Your task to perform on an android device: install app "The Home Depot" Image 0: 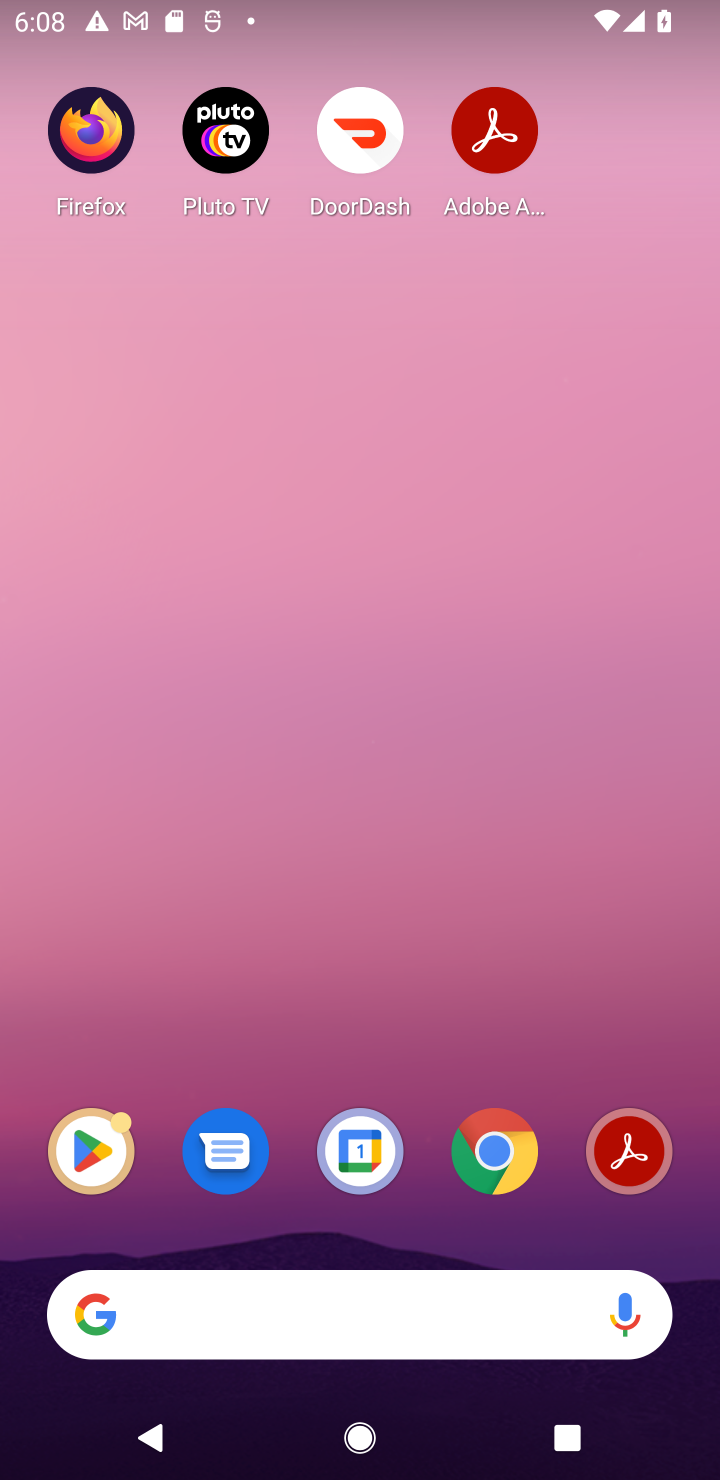
Step 0: drag from (340, 1302) to (472, 131)
Your task to perform on an android device: install app "The Home Depot" Image 1: 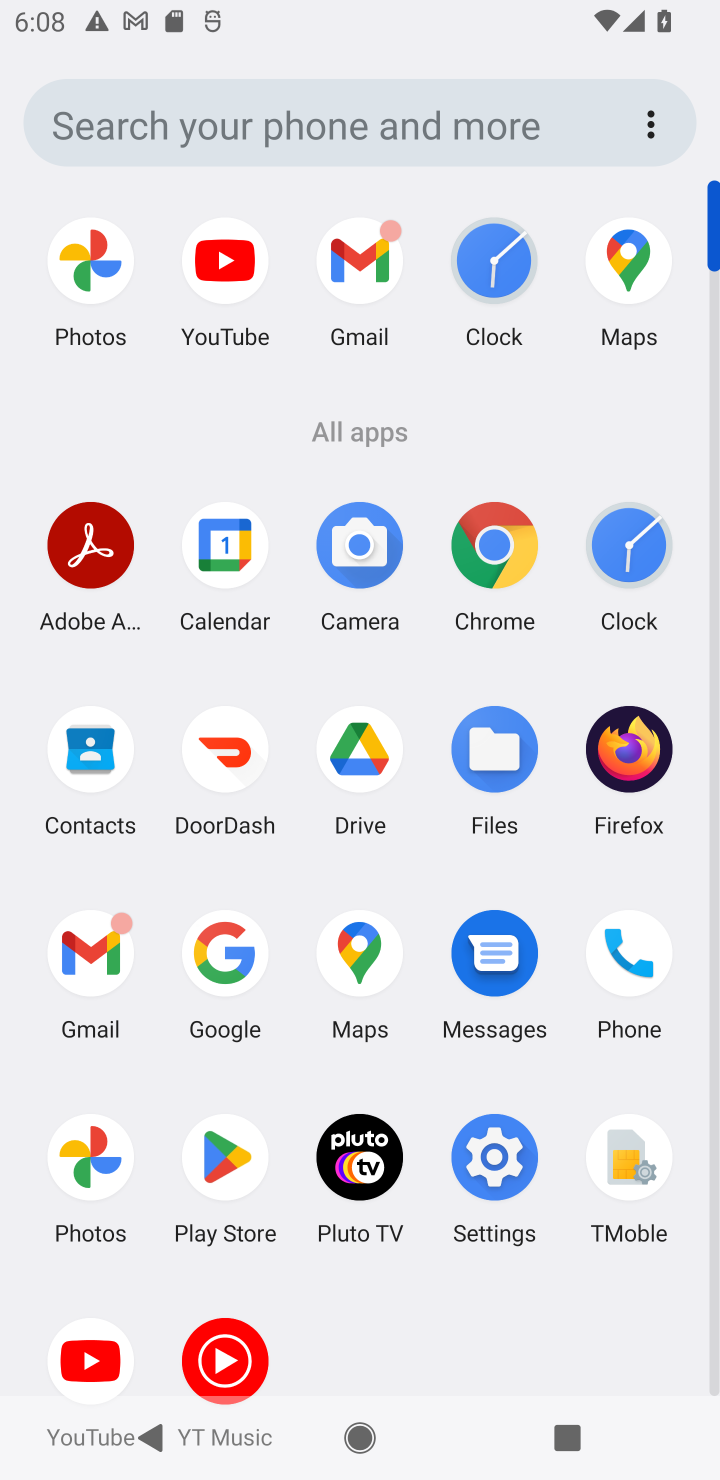
Step 1: click (228, 1178)
Your task to perform on an android device: install app "The Home Depot" Image 2: 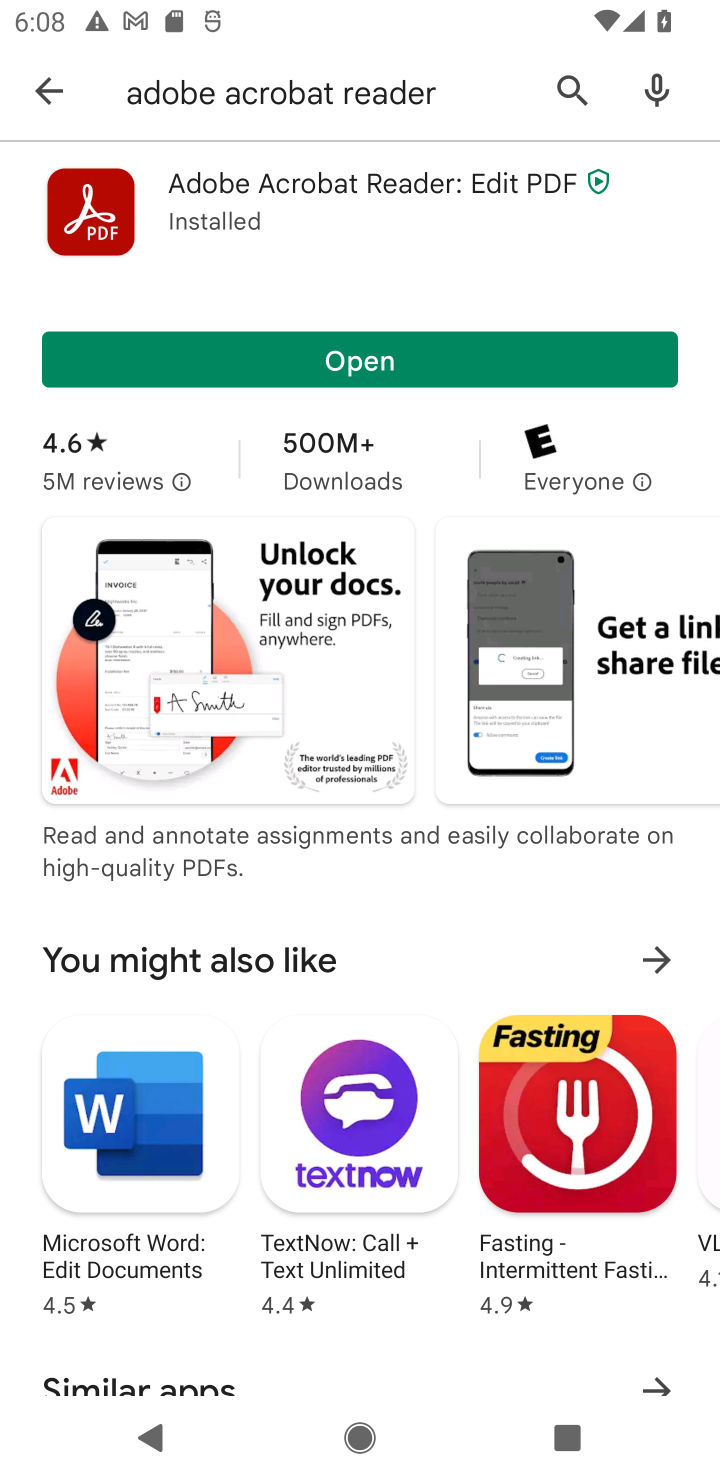
Step 2: click (560, 104)
Your task to perform on an android device: install app "The Home Depot" Image 3: 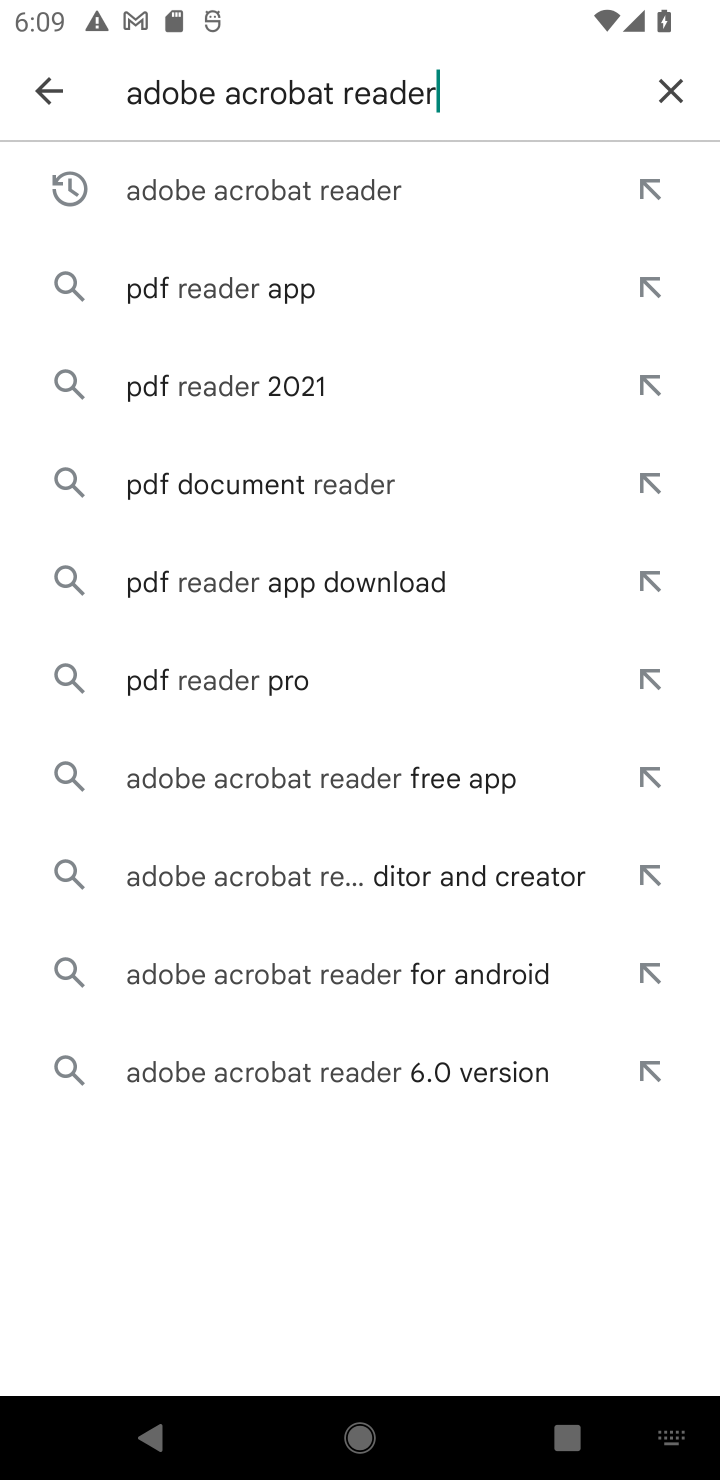
Step 3: click (678, 99)
Your task to perform on an android device: install app "The Home Depot" Image 4: 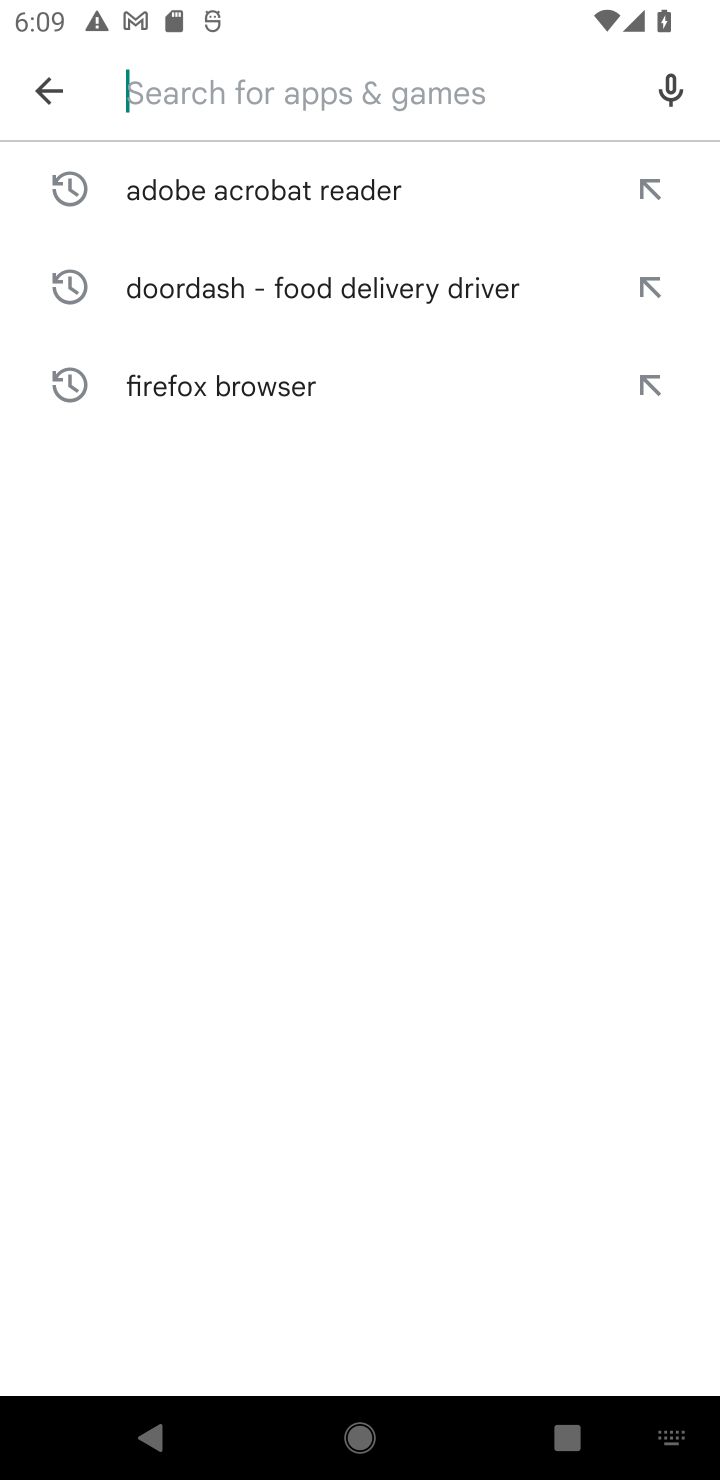
Step 4: type "the home depot"
Your task to perform on an android device: install app "The Home Depot" Image 5: 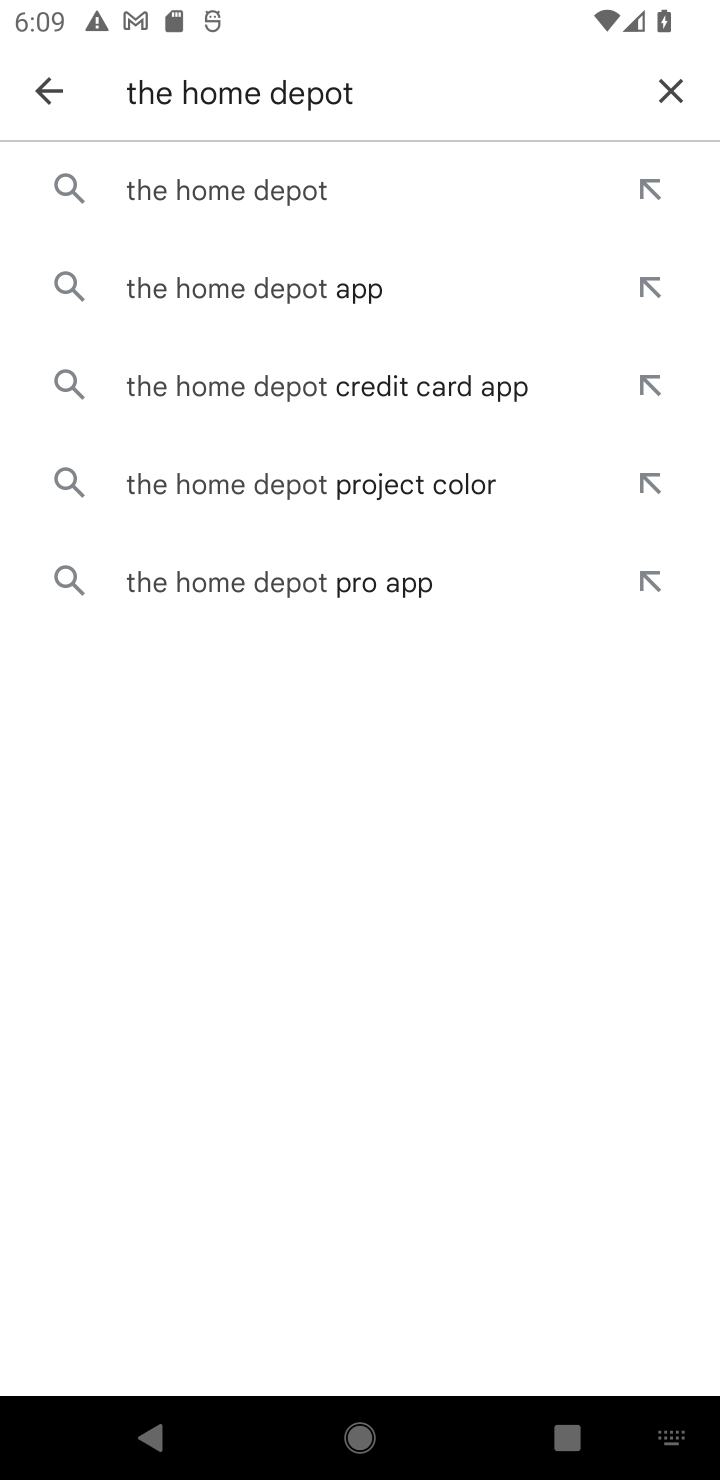
Step 5: click (214, 202)
Your task to perform on an android device: install app "The Home Depot" Image 6: 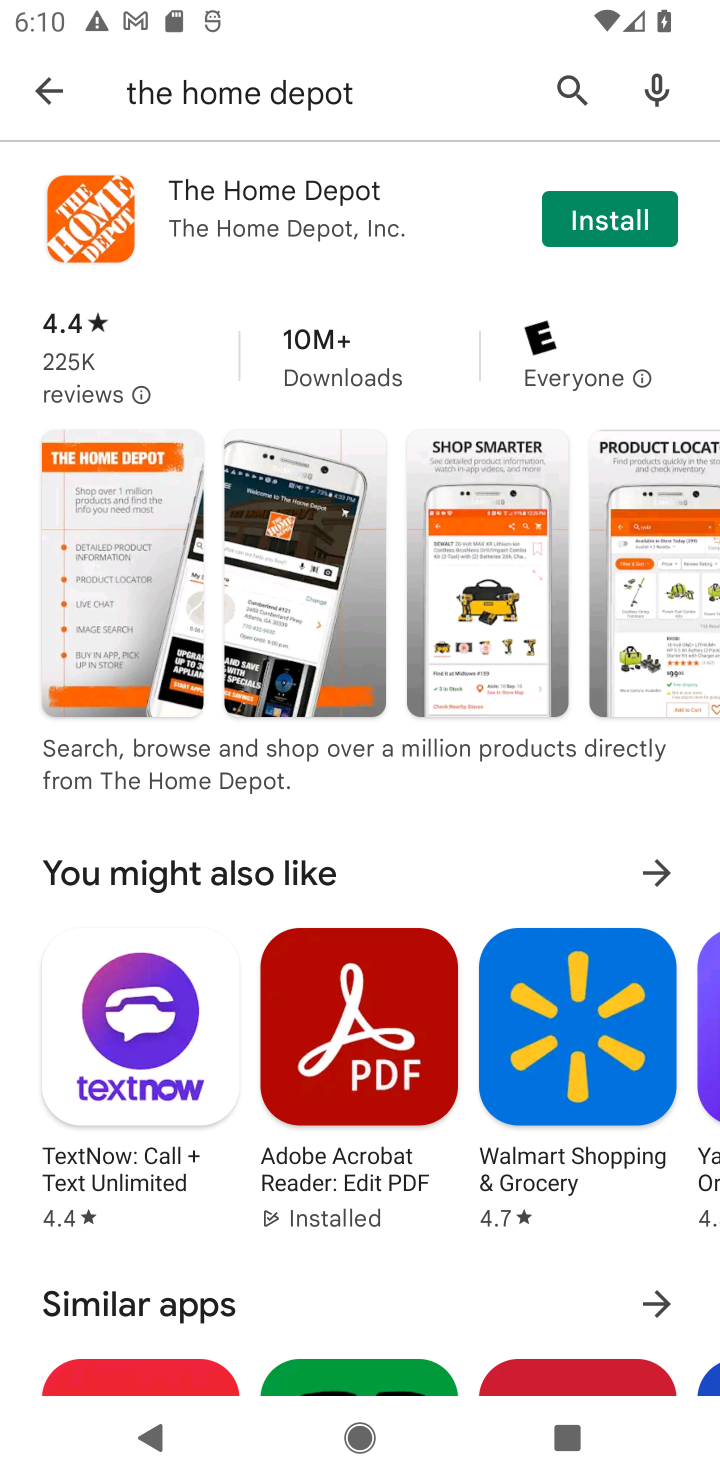
Step 6: click (610, 223)
Your task to perform on an android device: install app "The Home Depot" Image 7: 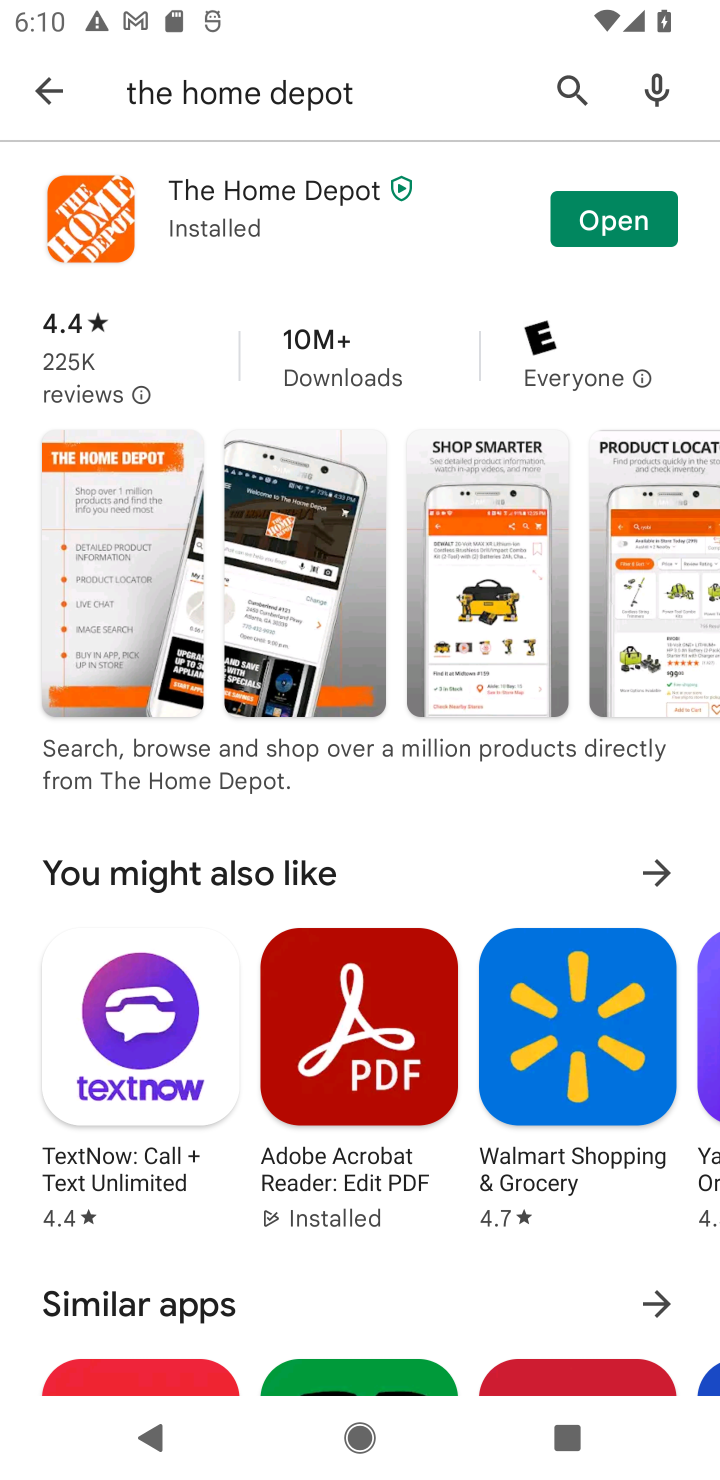
Step 7: task complete